Your task to perform on an android device: Clear the shopping cart on walmart.com. Add duracell triple a to the cart on walmart.com Image 0: 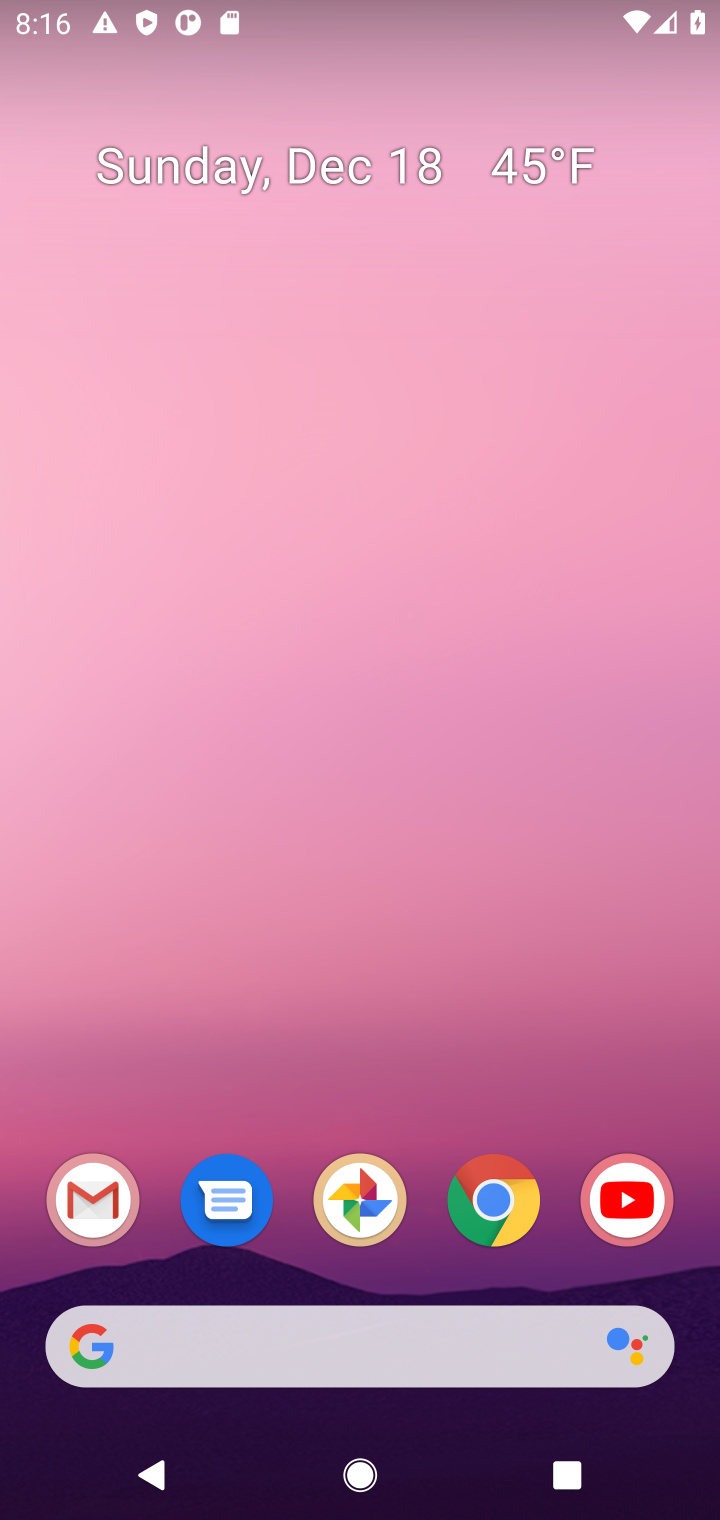
Step 0: click (487, 1208)
Your task to perform on an android device: Clear the shopping cart on walmart.com. Add duracell triple a to the cart on walmart.com Image 1: 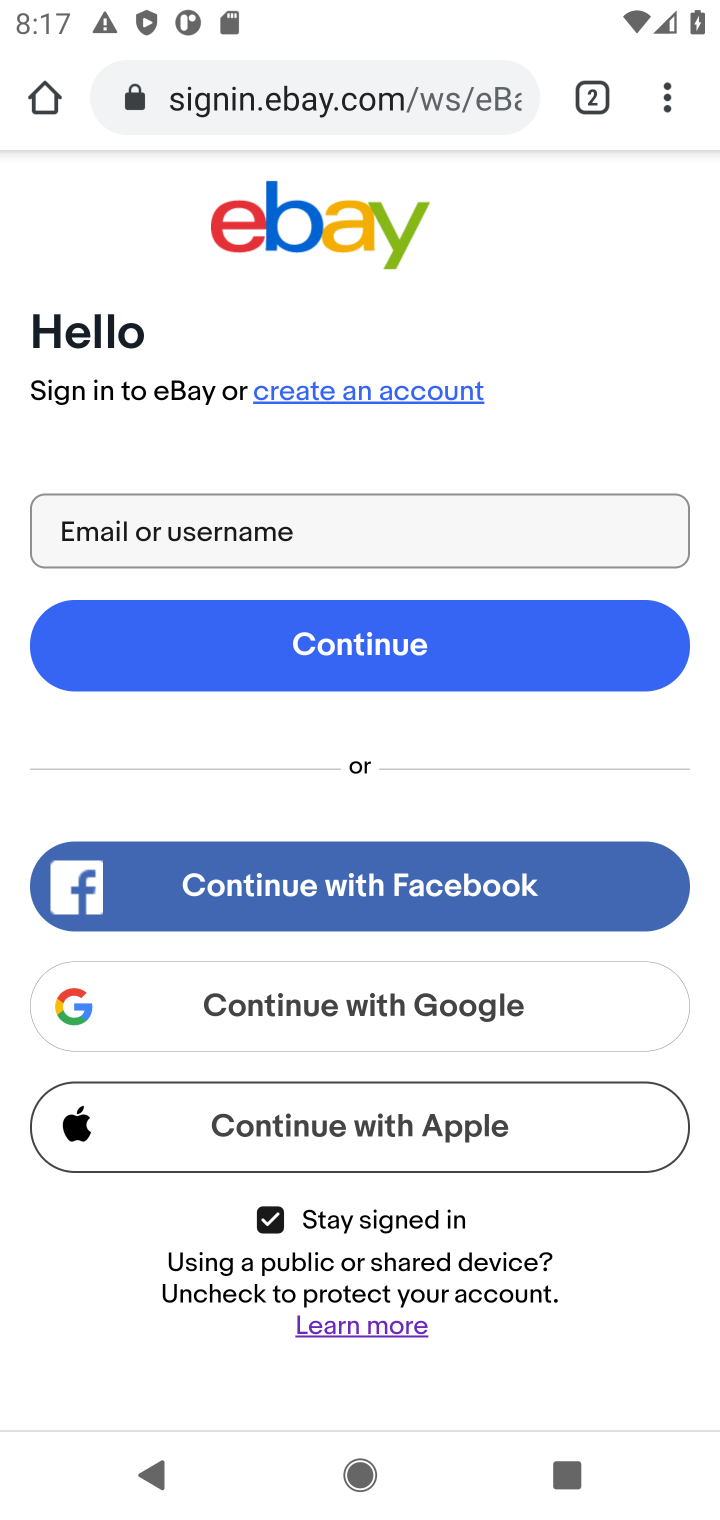
Step 1: click (215, 94)
Your task to perform on an android device: Clear the shopping cart on walmart.com. Add duracell triple a to the cart on walmart.com Image 2: 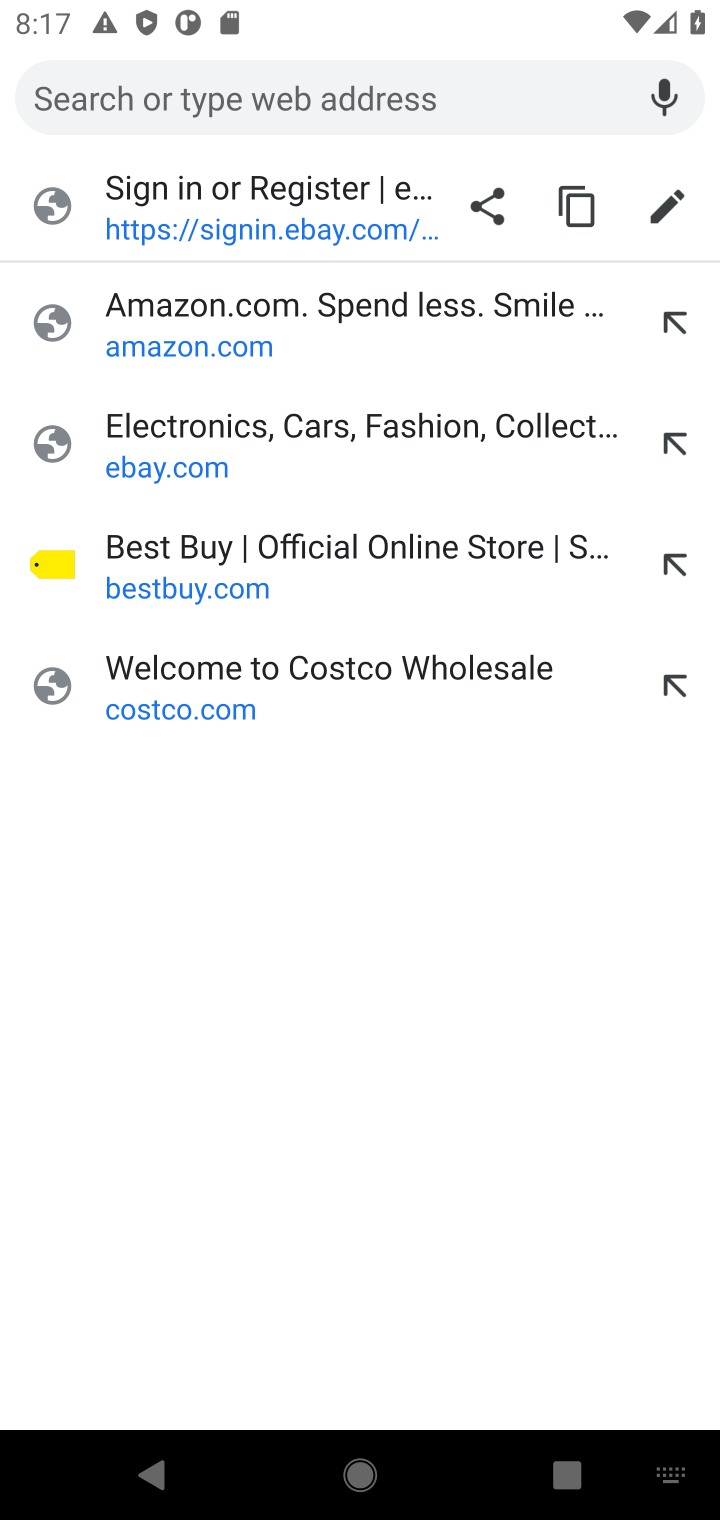
Step 2: type "walmart.com"
Your task to perform on an android device: Clear the shopping cart on walmart.com. Add duracell triple a to the cart on walmart.com Image 3: 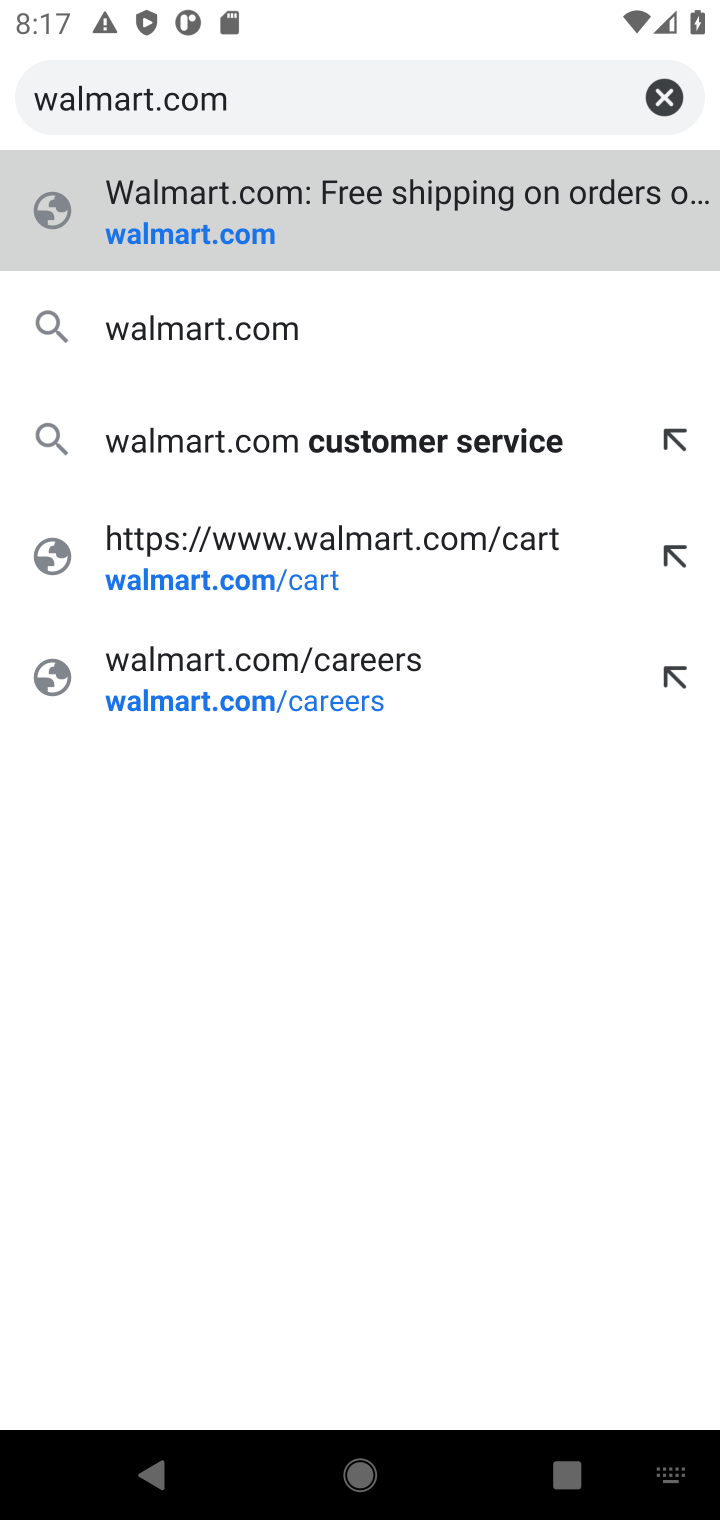
Step 3: click (166, 224)
Your task to perform on an android device: Clear the shopping cart on walmart.com. Add duracell triple a to the cart on walmart.com Image 4: 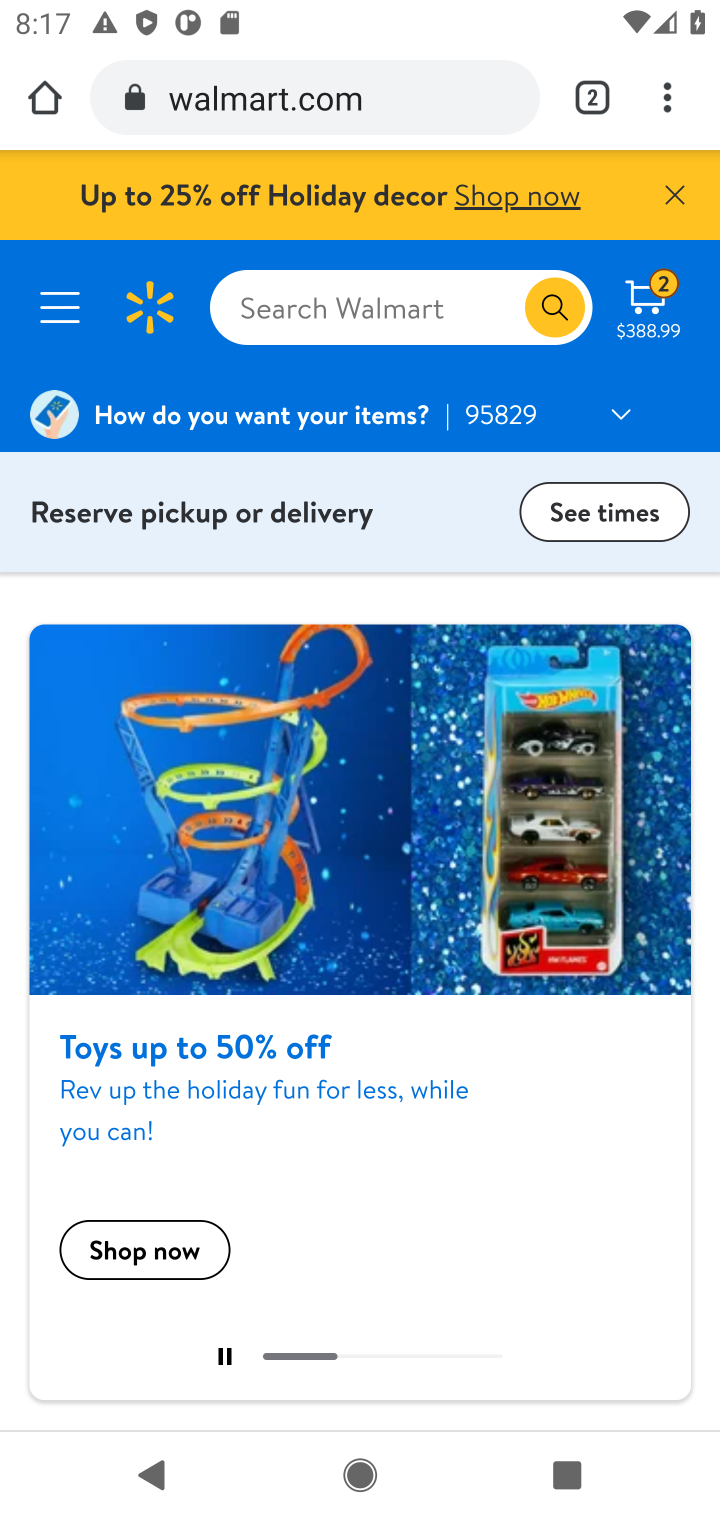
Step 4: click (648, 310)
Your task to perform on an android device: Clear the shopping cart on walmart.com. Add duracell triple a to the cart on walmart.com Image 5: 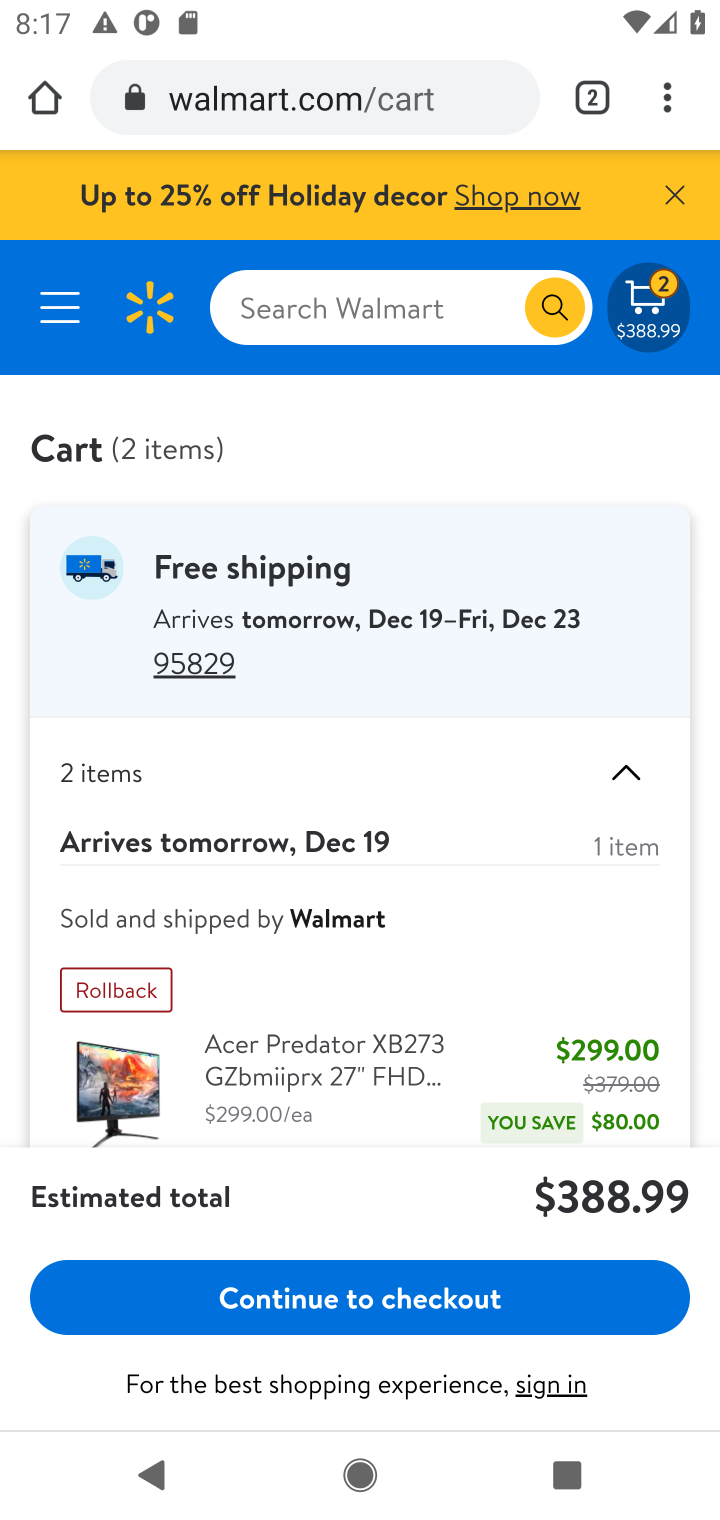
Step 5: drag from (356, 987) to (394, 361)
Your task to perform on an android device: Clear the shopping cart on walmart.com. Add duracell triple a to the cart on walmart.com Image 6: 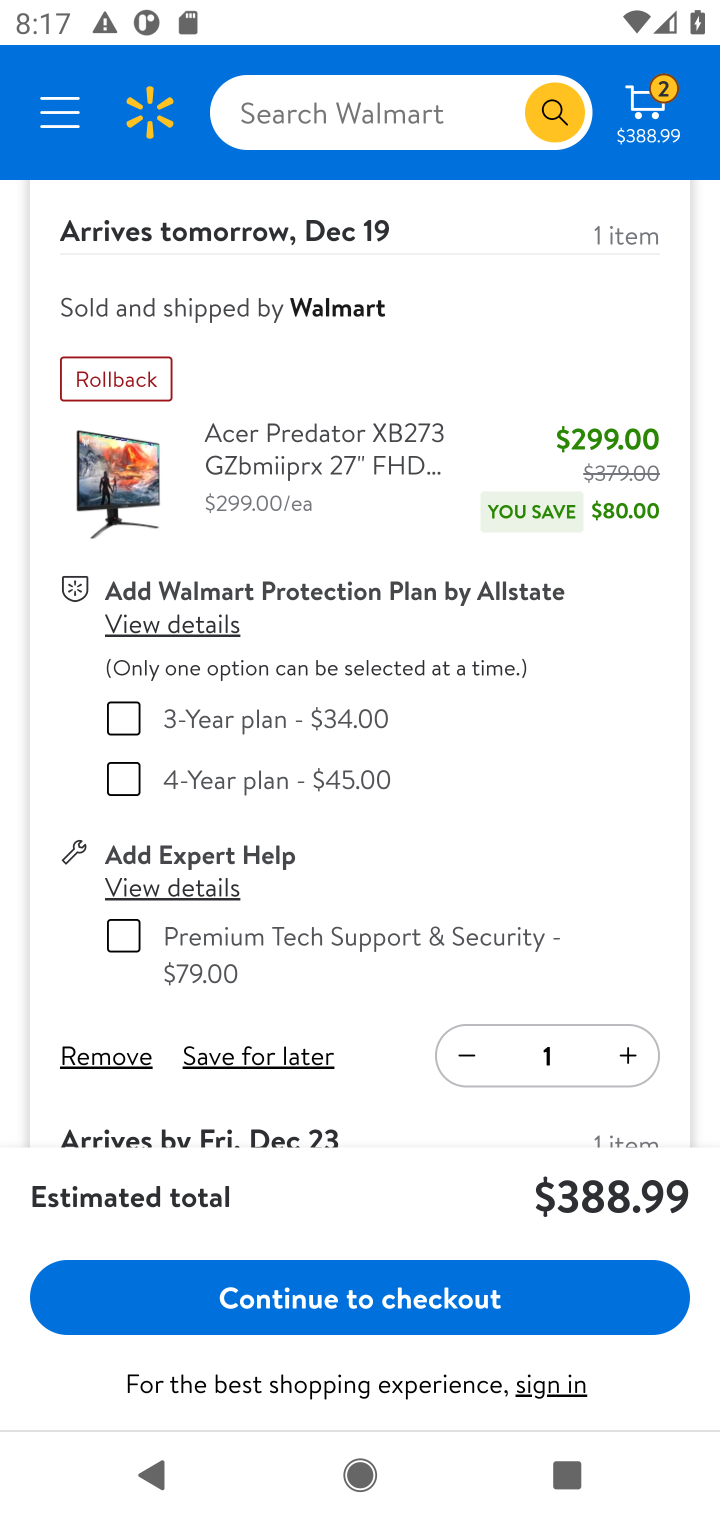
Step 6: drag from (371, 857) to (385, 302)
Your task to perform on an android device: Clear the shopping cart on walmart.com. Add duracell triple a to the cart on walmart.com Image 7: 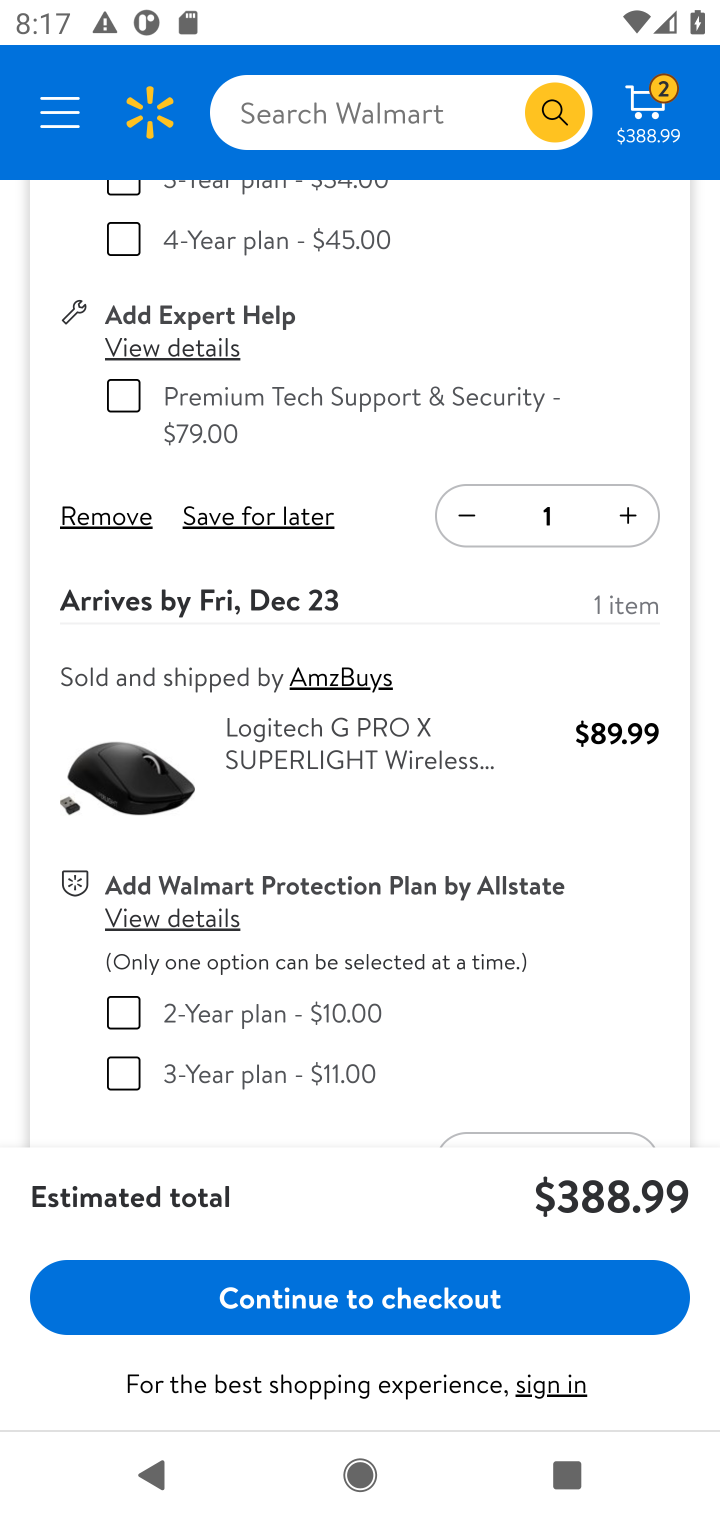
Step 7: click (81, 528)
Your task to perform on an android device: Clear the shopping cart on walmart.com. Add duracell triple a to the cart on walmart.com Image 8: 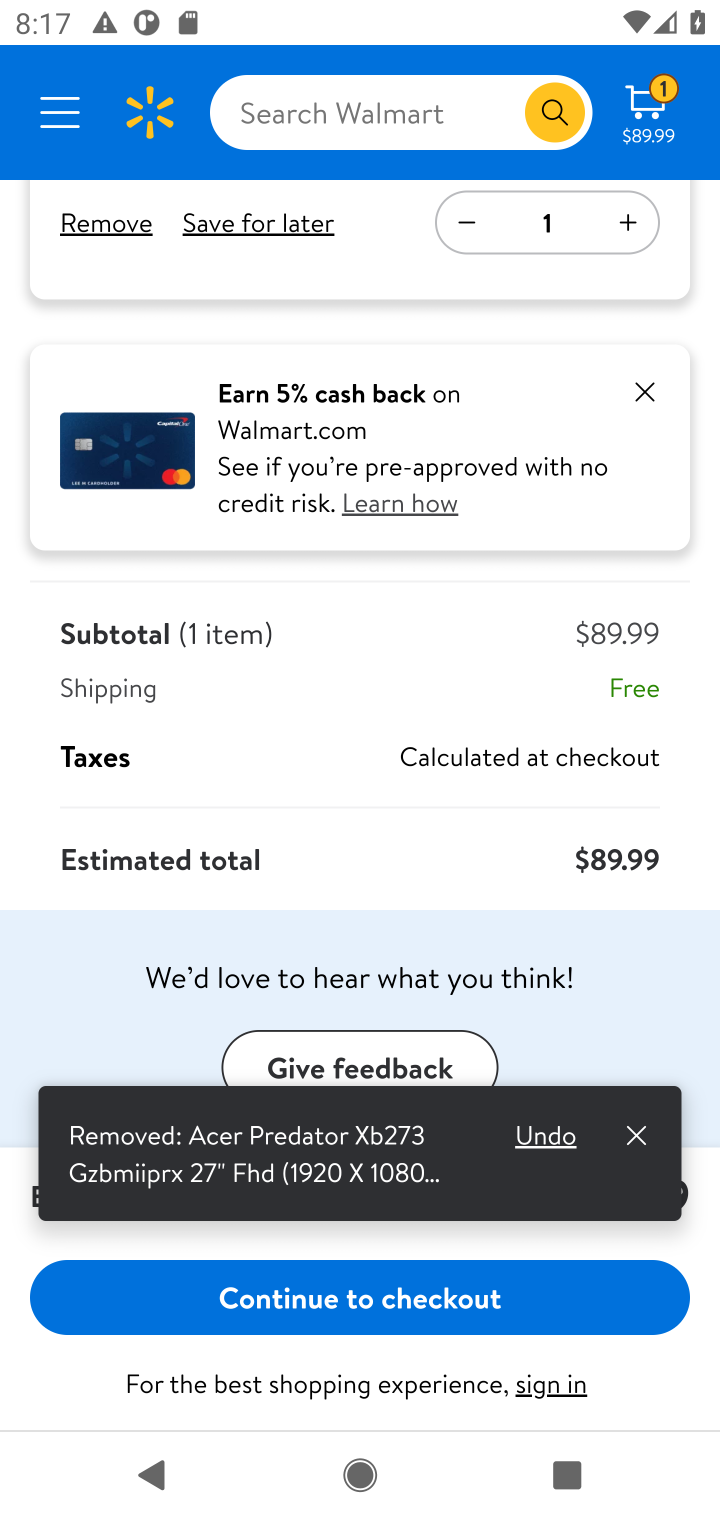
Step 8: click (86, 232)
Your task to perform on an android device: Clear the shopping cart on walmart.com. Add duracell triple a to the cart on walmart.com Image 9: 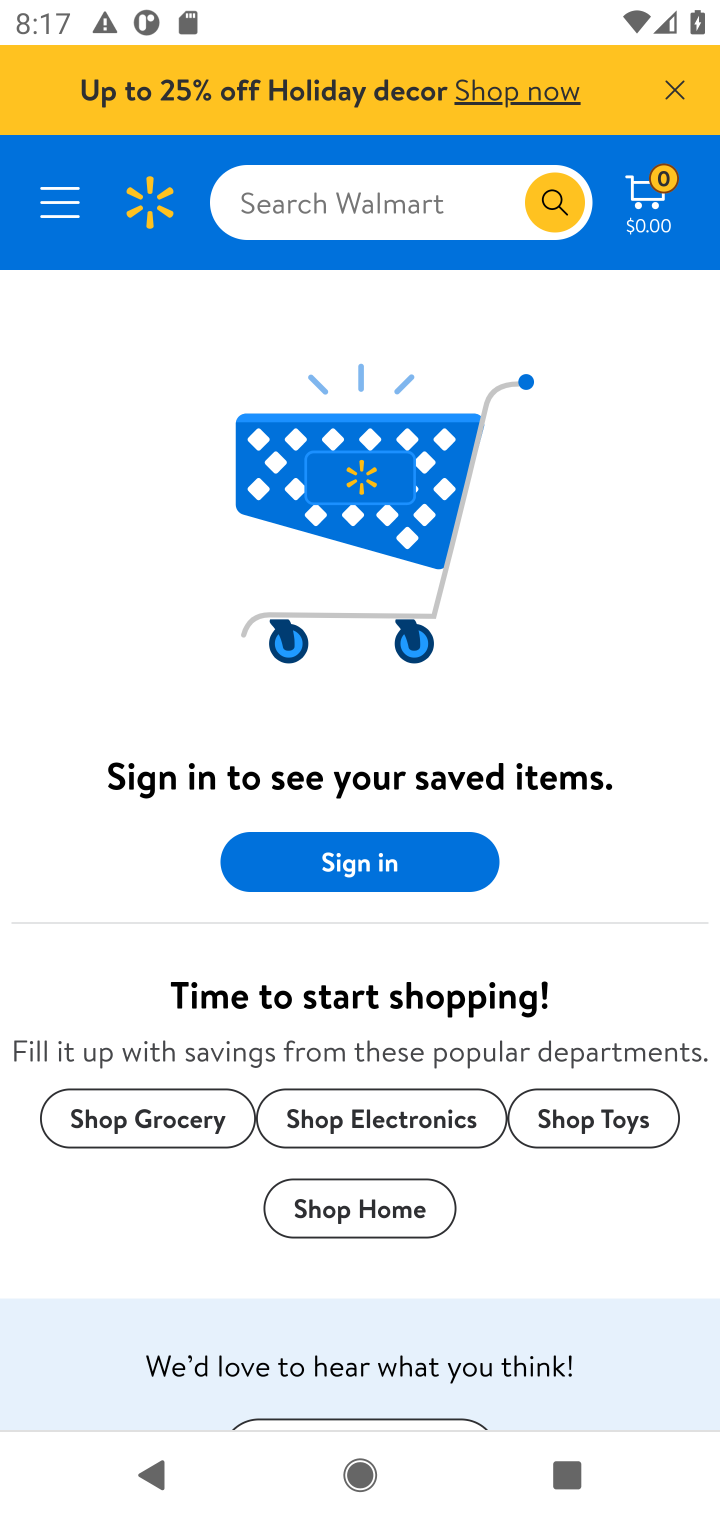
Step 9: click (327, 204)
Your task to perform on an android device: Clear the shopping cart on walmart.com. Add duracell triple a to the cart on walmart.com Image 10: 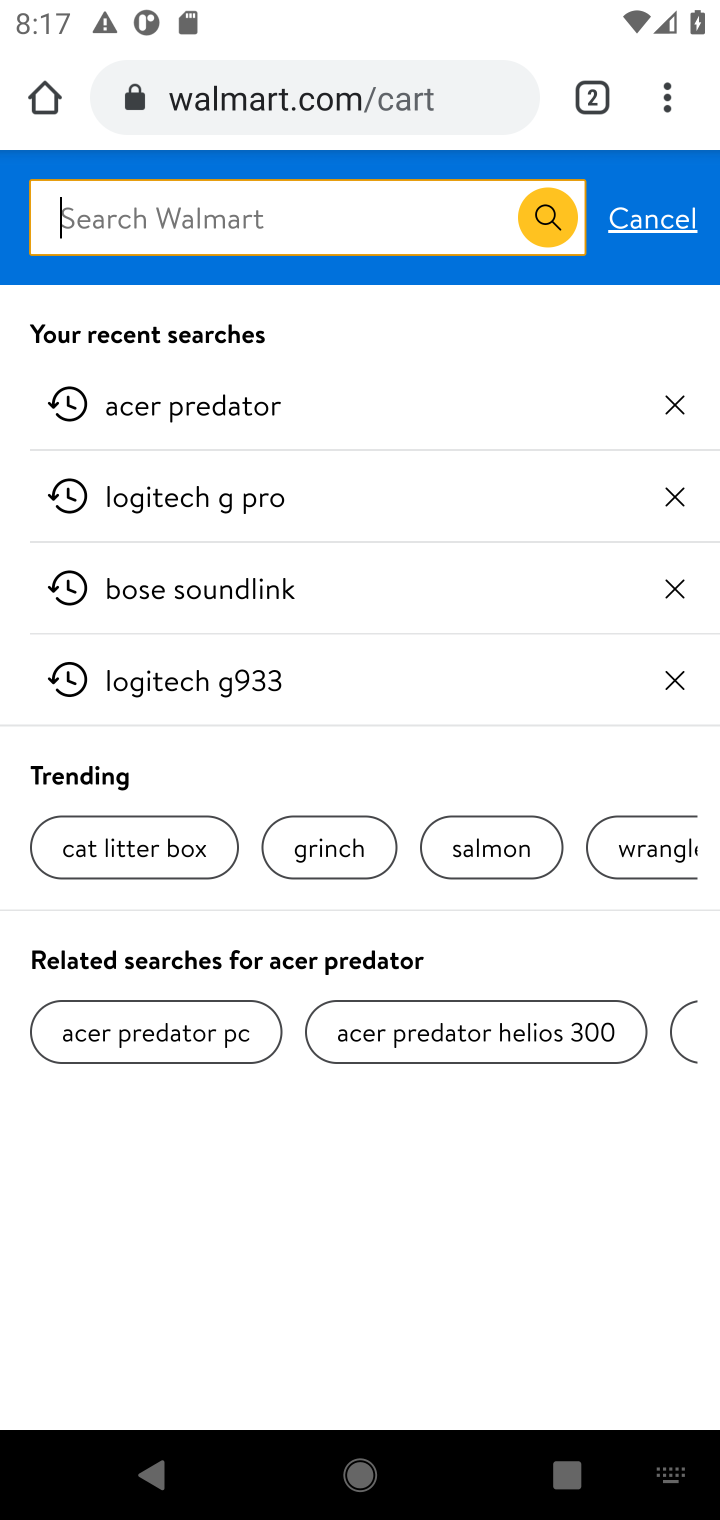
Step 10: type "duracell triple a"
Your task to perform on an android device: Clear the shopping cart on walmart.com. Add duracell triple a to the cart on walmart.com Image 11: 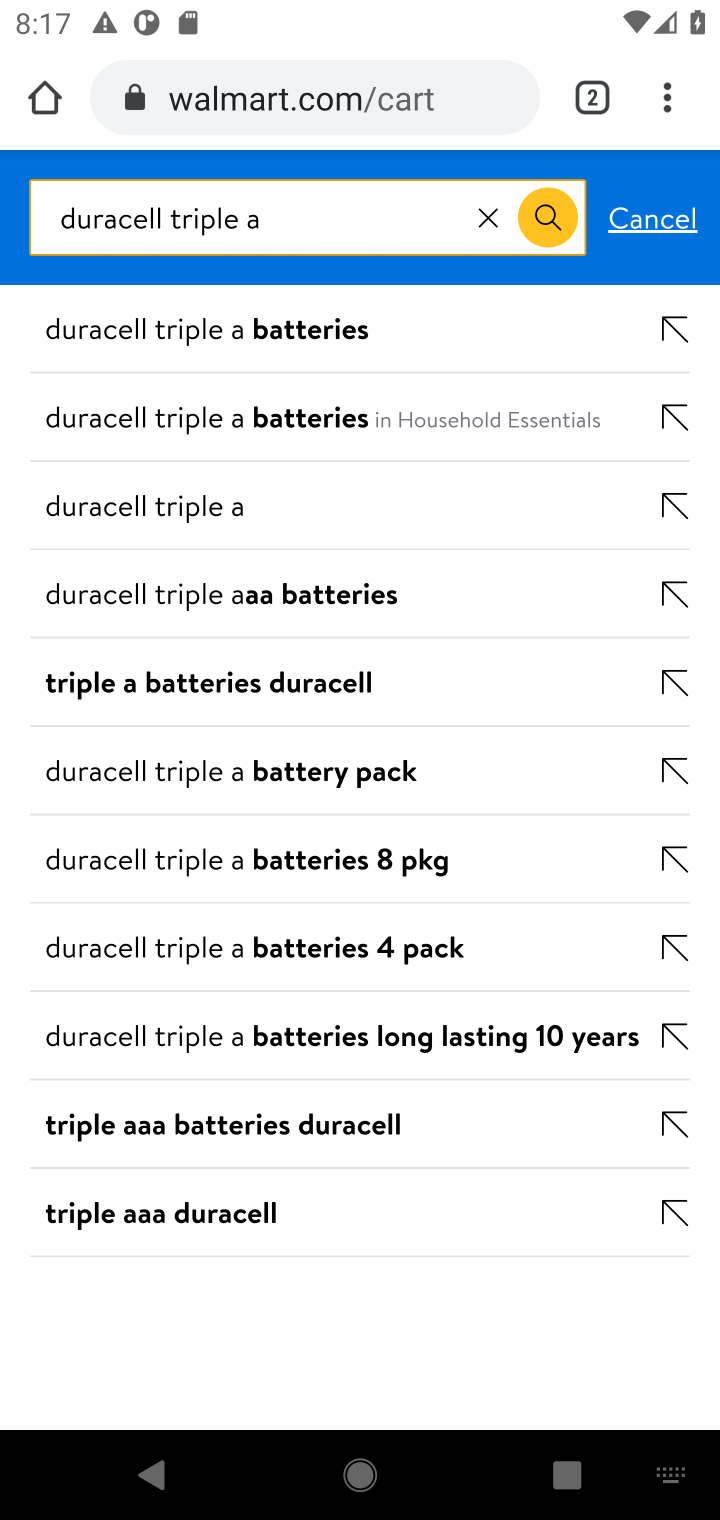
Step 11: click (315, 335)
Your task to perform on an android device: Clear the shopping cart on walmart.com. Add duracell triple a to the cart on walmart.com Image 12: 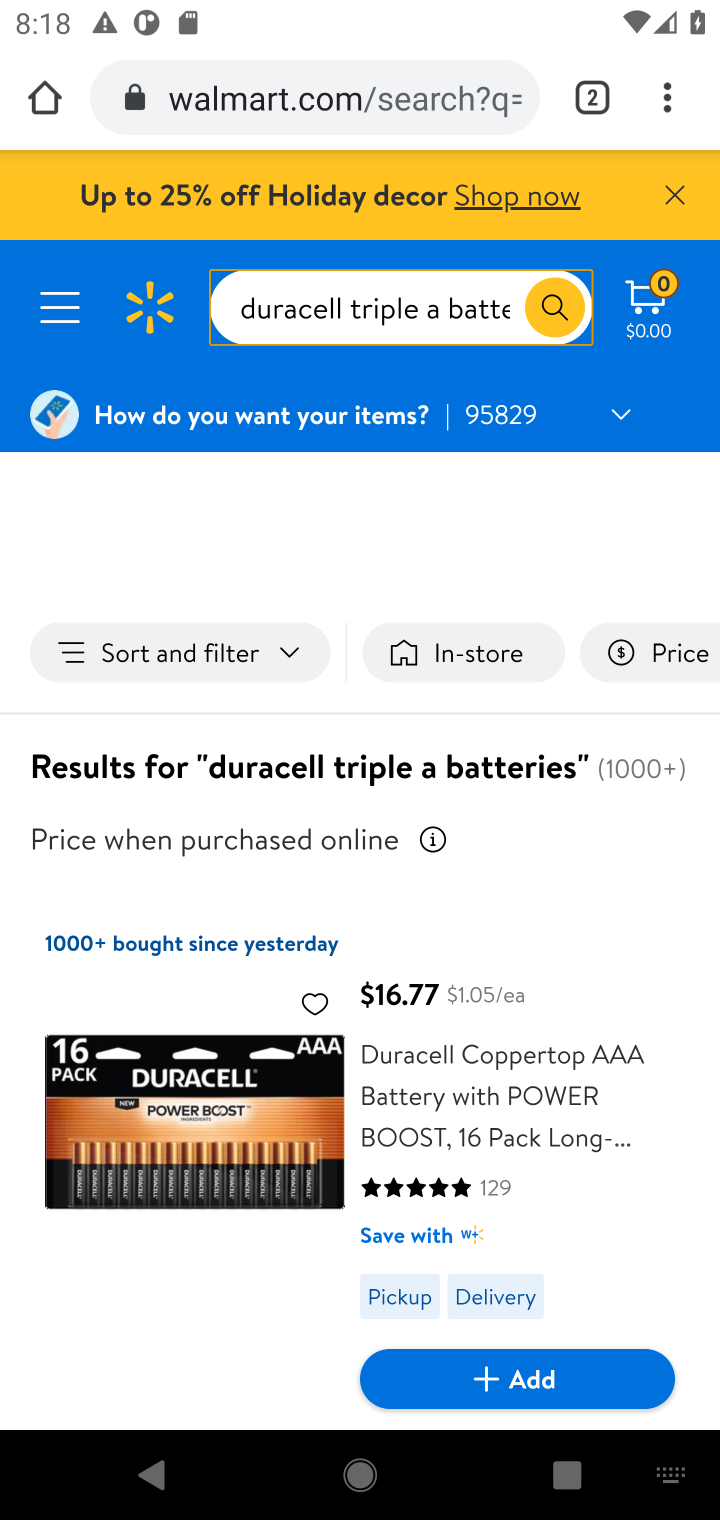
Step 12: drag from (264, 869) to (284, 538)
Your task to perform on an android device: Clear the shopping cart on walmart.com. Add duracell triple a to the cart on walmart.com Image 13: 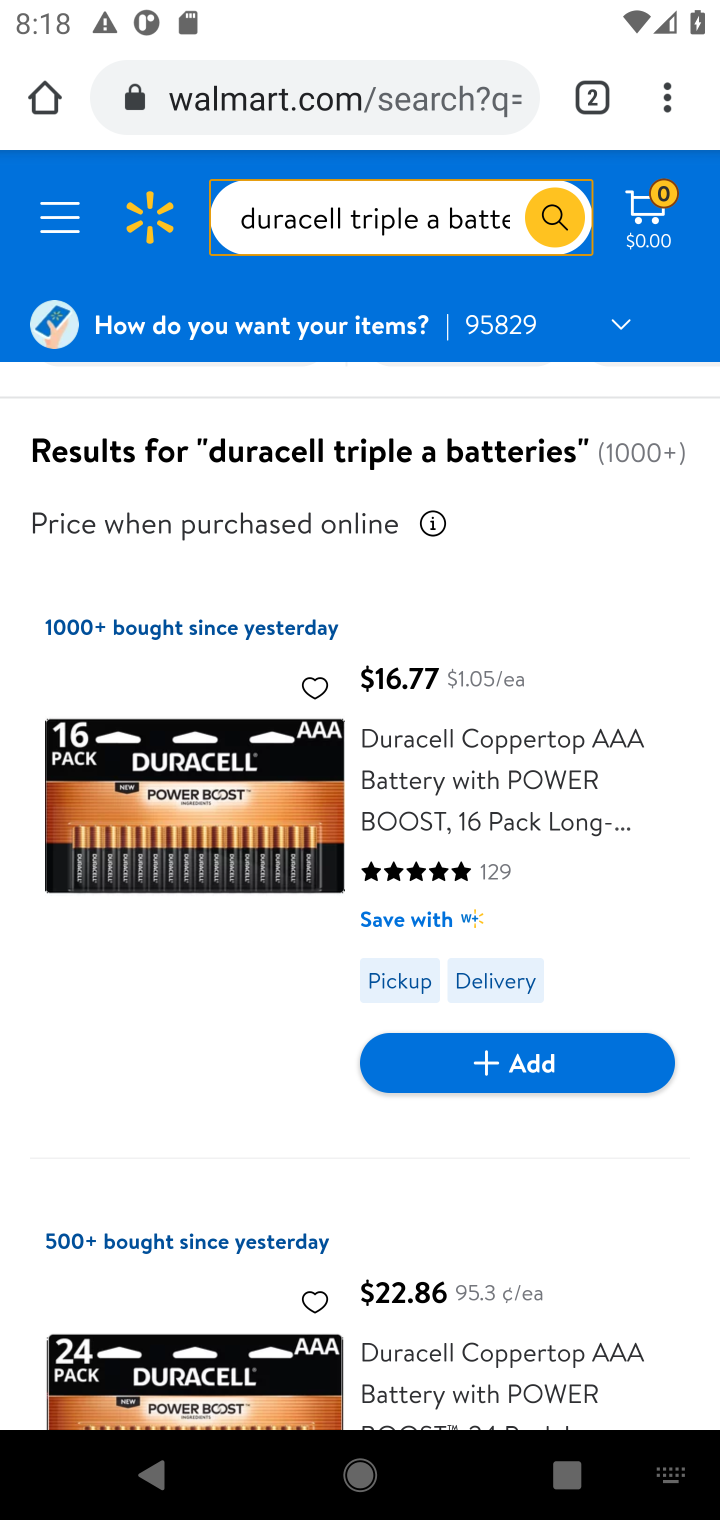
Step 13: click (531, 1060)
Your task to perform on an android device: Clear the shopping cart on walmart.com. Add duracell triple a to the cart on walmart.com Image 14: 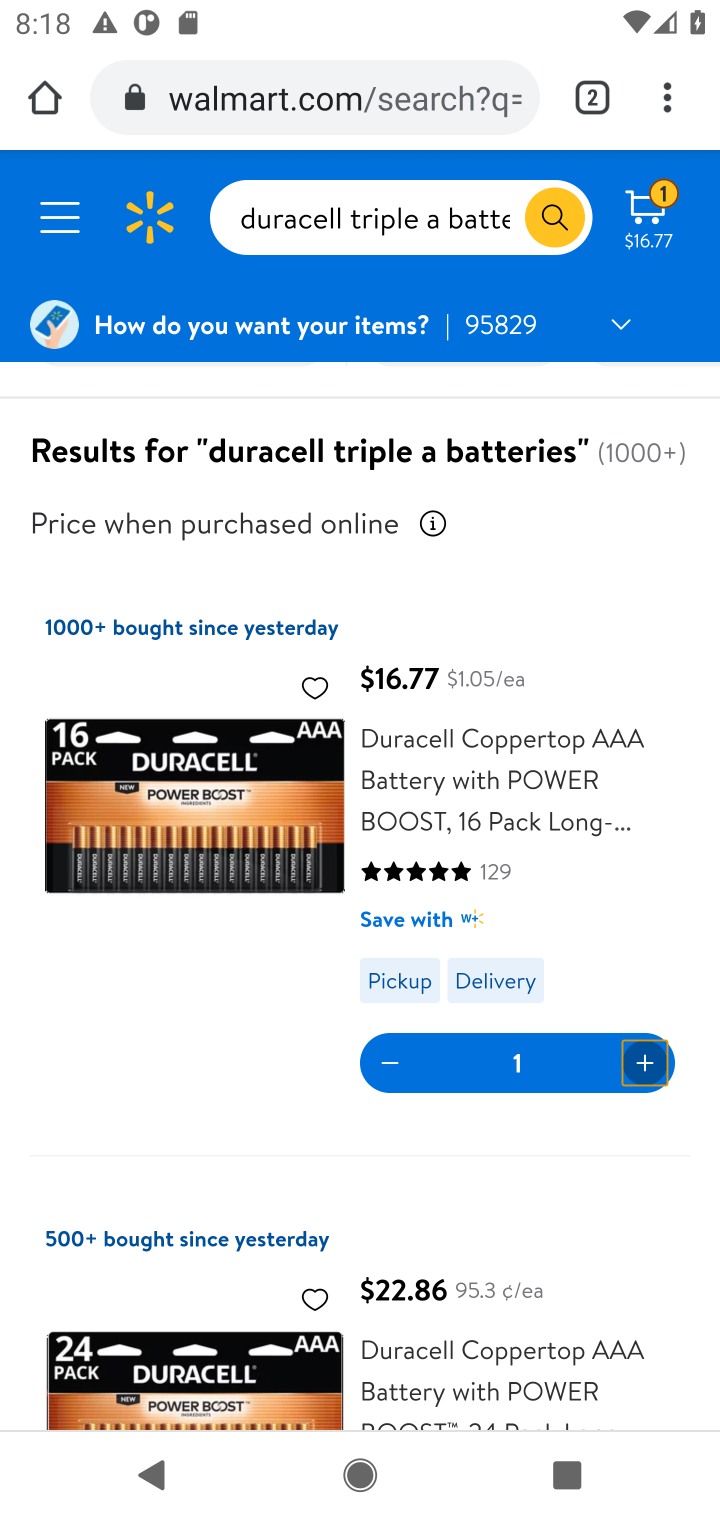
Step 14: task complete